Your task to perform on an android device: delete the emails in spam in the gmail app Image 0: 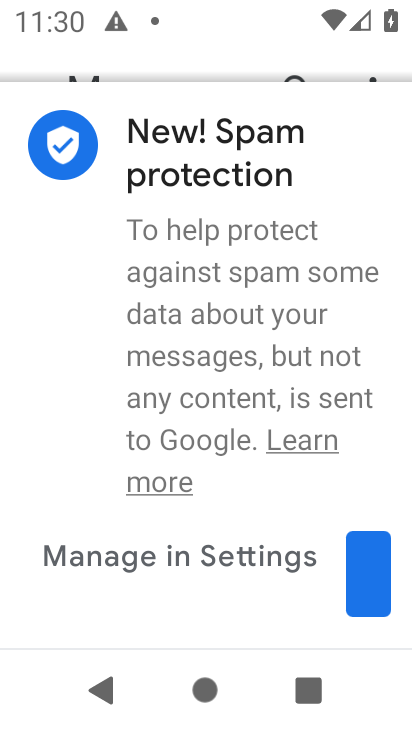
Step 0: press back button
Your task to perform on an android device: delete the emails in spam in the gmail app Image 1: 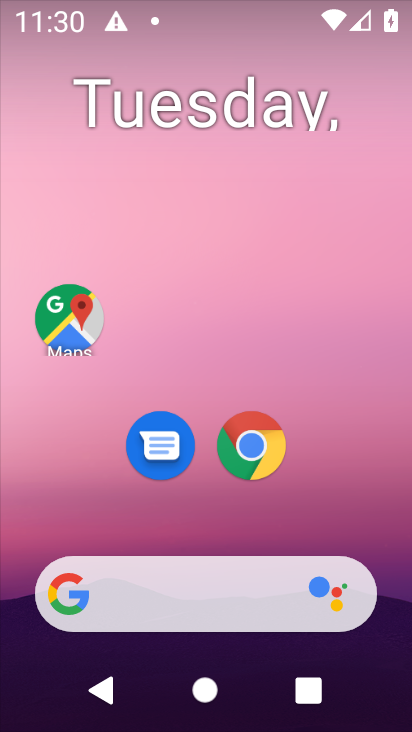
Step 1: drag from (216, 523) to (289, 0)
Your task to perform on an android device: delete the emails in spam in the gmail app Image 2: 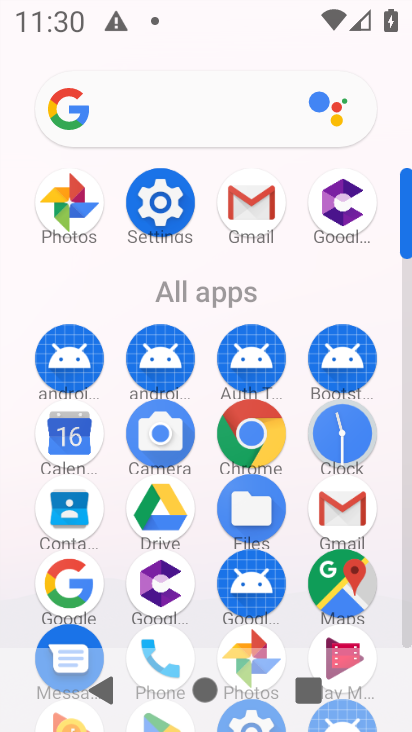
Step 2: click (265, 199)
Your task to perform on an android device: delete the emails in spam in the gmail app Image 3: 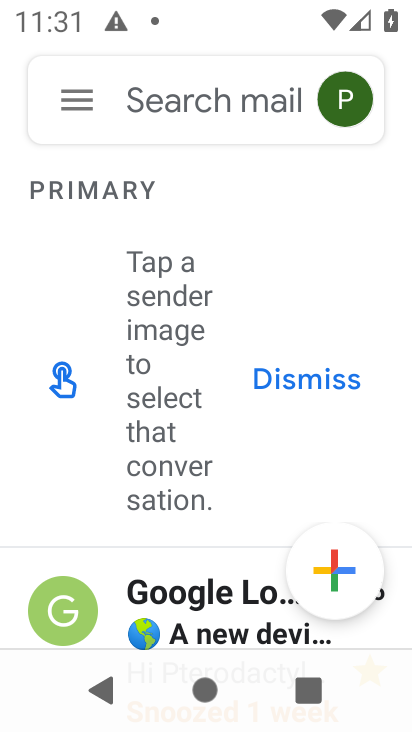
Step 3: click (74, 105)
Your task to perform on an android device: delete the emails in spam in the gmail app Image 4: 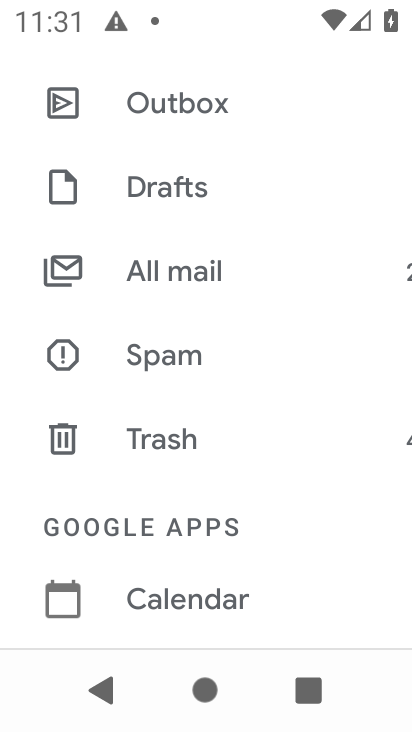
Step 4: click (162, 353)
Your task to perform on an android device: delete the emails in spam in the gmail app Image 5: 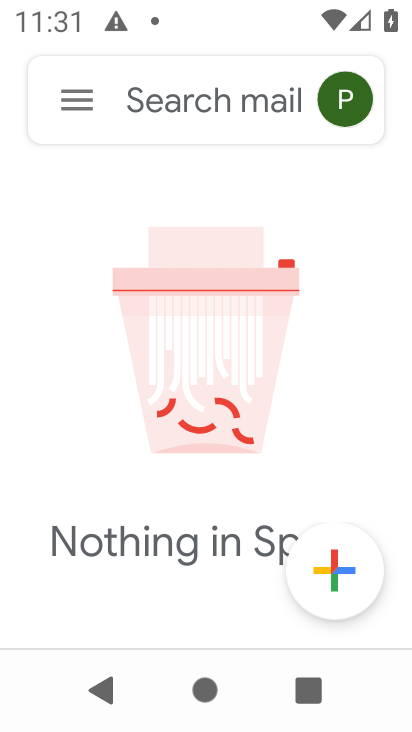
Step 5: task complete